Your task to perform on an android device: see sites visited before in the chrome app Image 0: 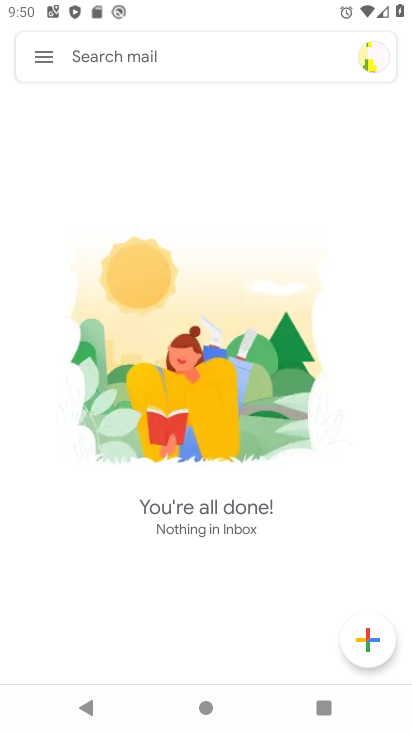
Step 0: press home button
Your task to perform on an android device: see sites visited before in the chrome app Image 1: 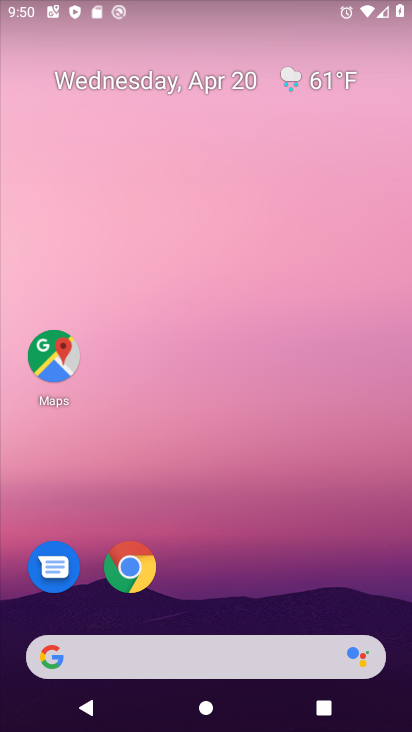
Step 1: click (114, 575)
Your task to perform on an android device: see sites visited before in the chrome app Image 2: 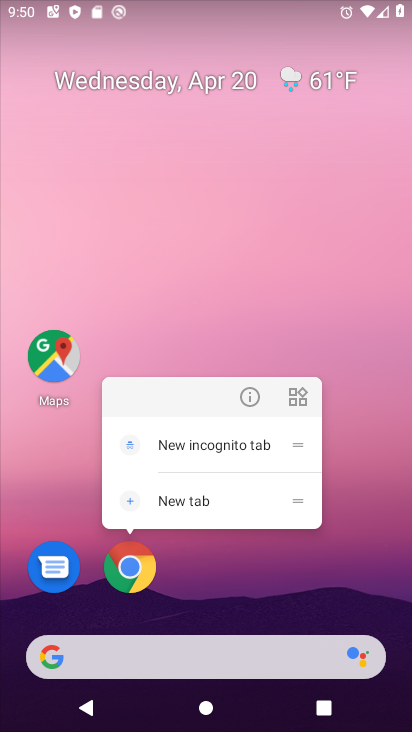
Step 2: click (114, 575)
Your task to perform on an android device: see sites visited before in the chrome app Image 3: 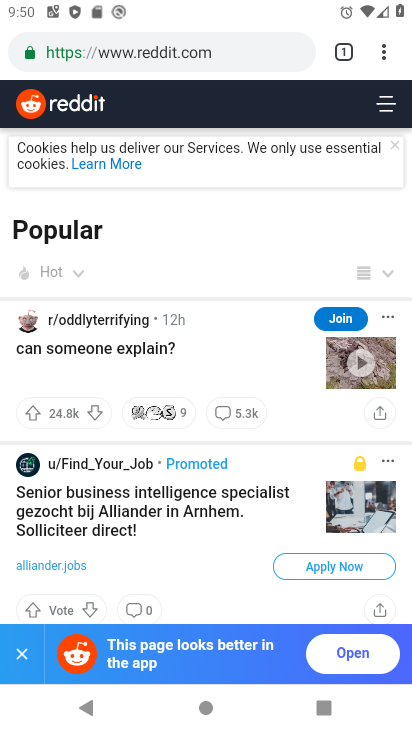
Step 3: task complete